Your task to perform on an android device: see creations saved in the google photos Image 0: 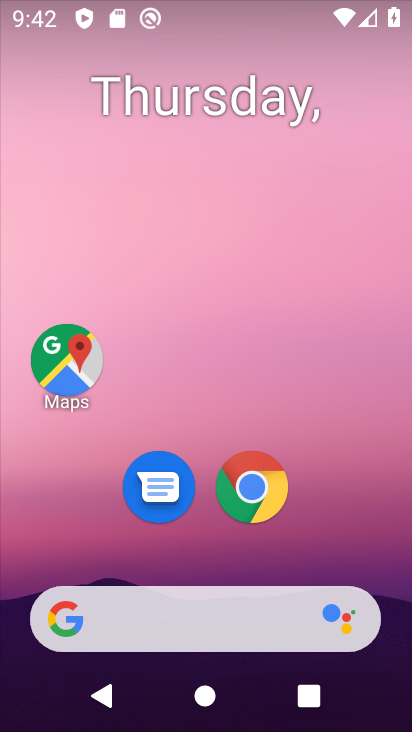
Step 0: drag from (326, 517) to (108, 52)
Your task to perform on an android device: see creations saved in the google photos Image 1: 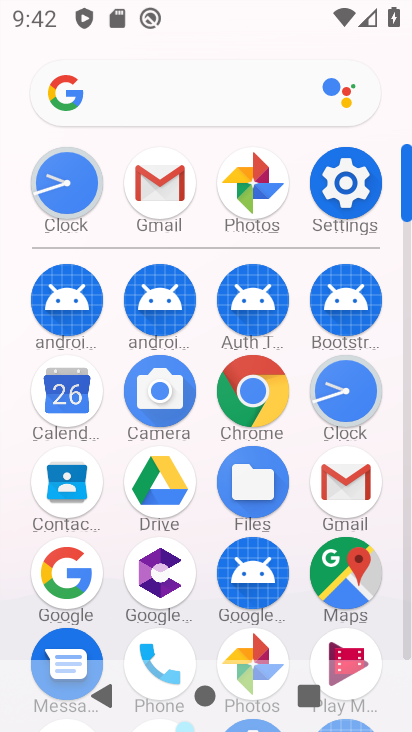
Step 1: click (249, 192)
Your task to perform on an android device: see creations saved in the google photos Image 2: 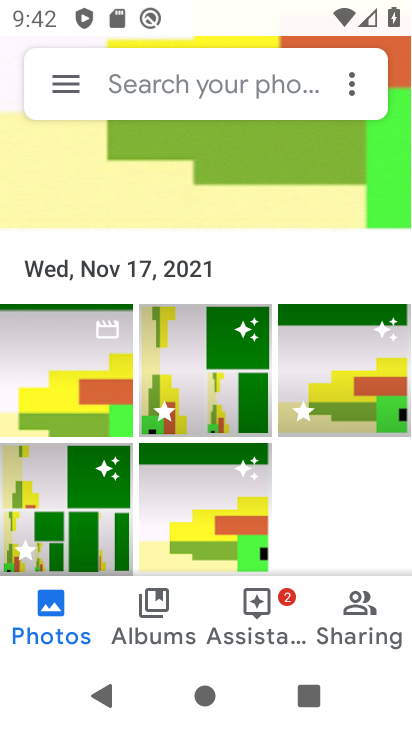
Step 2: click (243, 82)
Your task to perform on an android device: see creations saved in the google photos Image 3: 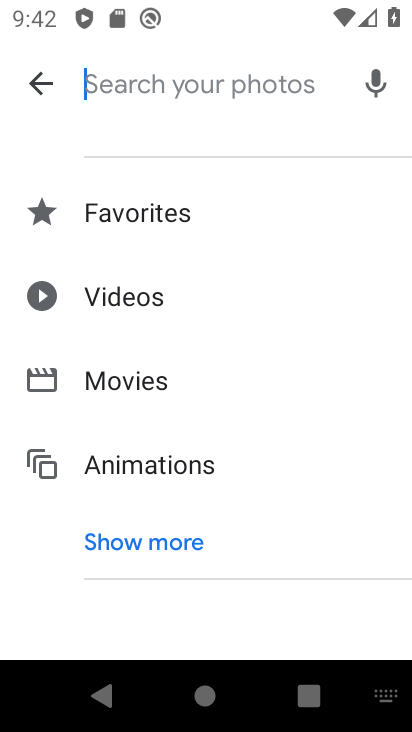
Step 3: click (109, 546)
Your task to perform on an android device: see creations saved in the google photos Image 4: 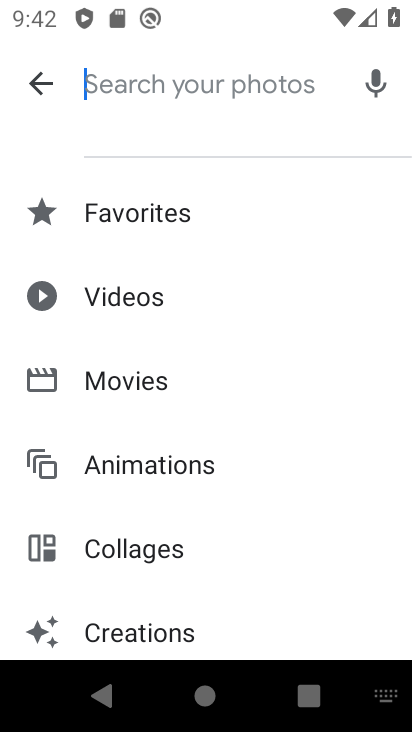
Step 4: click (105, 632)
Your task to perform on an android device: see creations saved in the google photos Image 5: 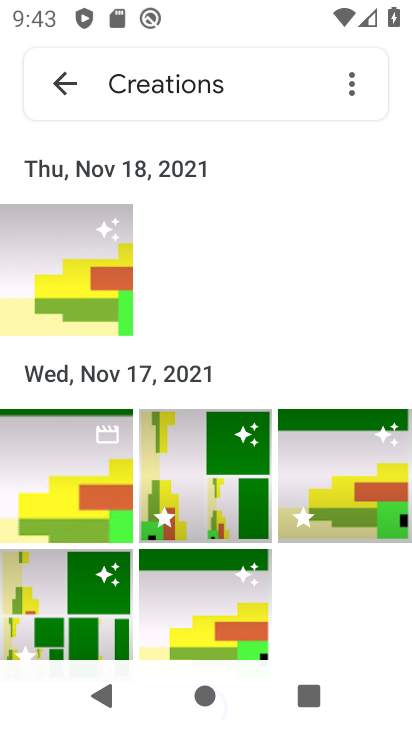
Step 5: task complete